Your task to perform on an android device: turn on data saver in the chrome app Image 0: 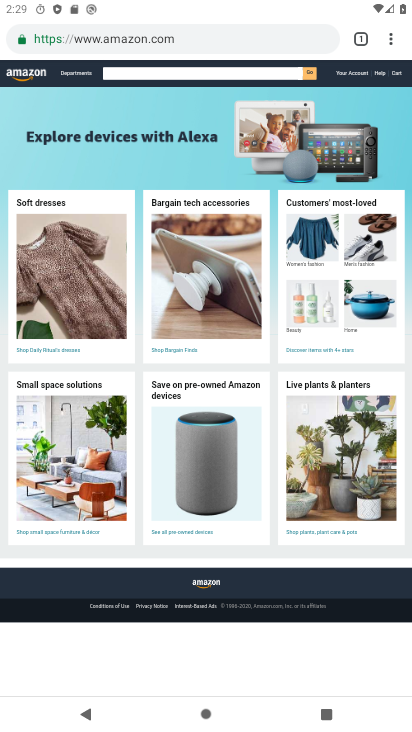
Step 0: press home button
Your task to perform on an android device: turn on data saver in the chrome app Image 1: 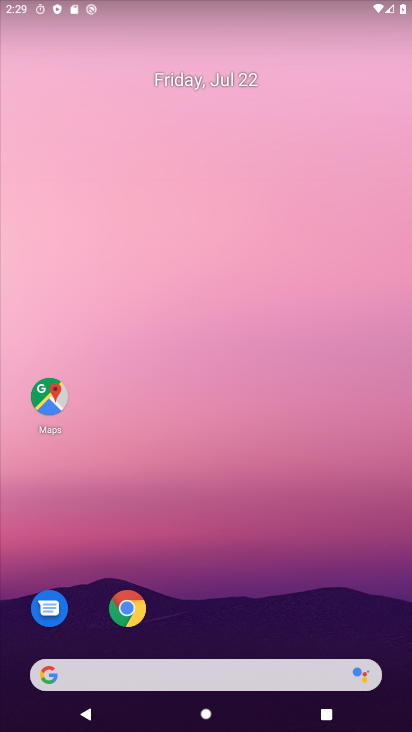
Step 1: drag from (153, 656) to (155, 192)
Your task to perform on an android device: turn on data saver in the chrome app Image 2: 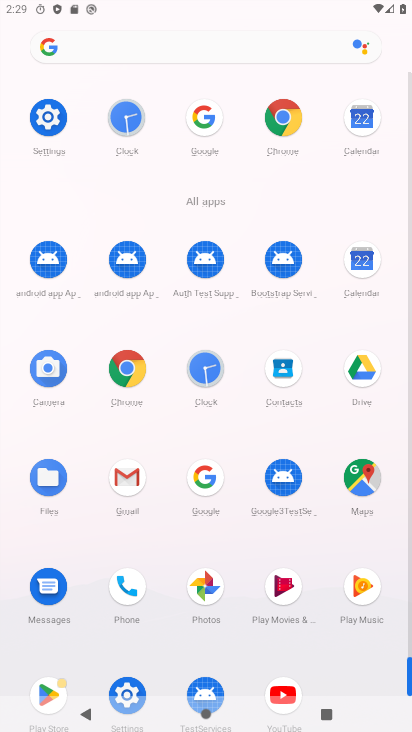
Step 2: click (125, 370)
Your task to perform on an android device: turn on data saver in the chrome app Image 3: 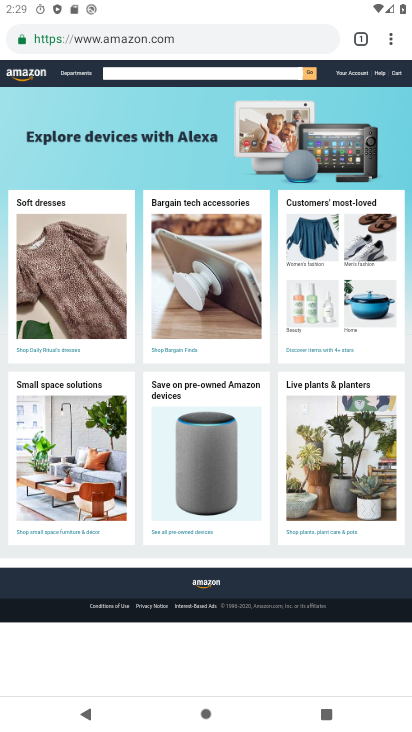
Step 3: click (395, 38)
Your task to perform on an android device: turn on data saver in the chrome app Image 4: 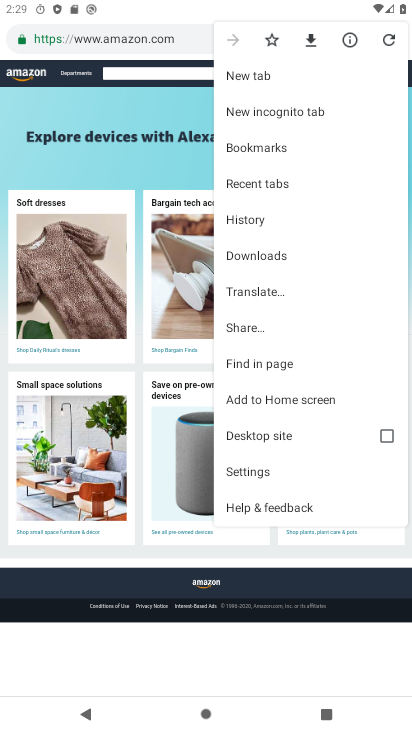
Step 4: click (253, 475)
Your task to perform on an android device: turn on data saver in the chrome app Image 5: 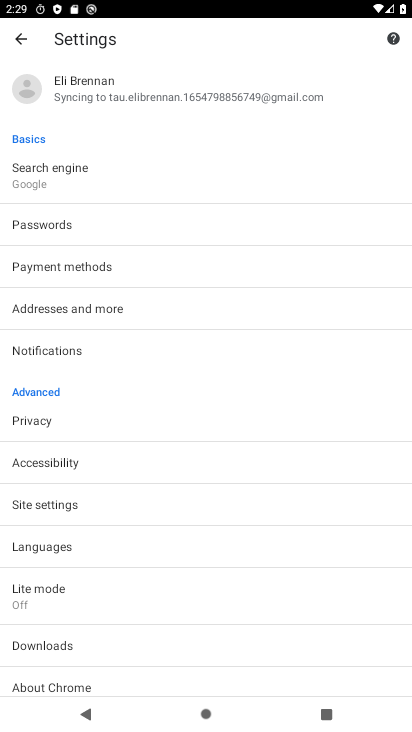
Step 5: click (27, 592)
Your task to perform on an android device: turn on data saver in the chrome app Image 6: 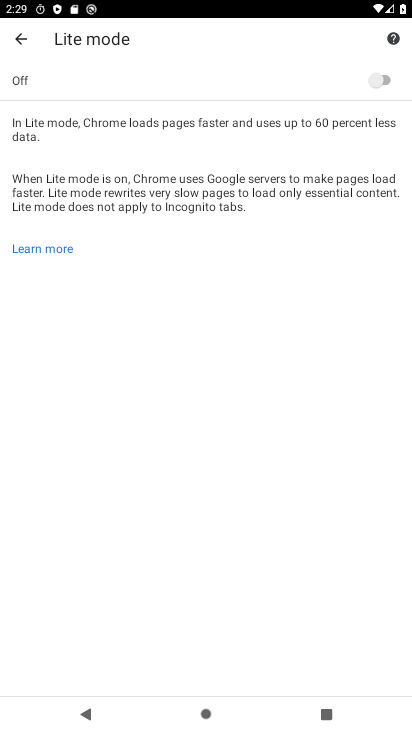
Step 6: click (386, 79)
Your task to perform on an android device: turn on data saver in the chrome app Image 7: 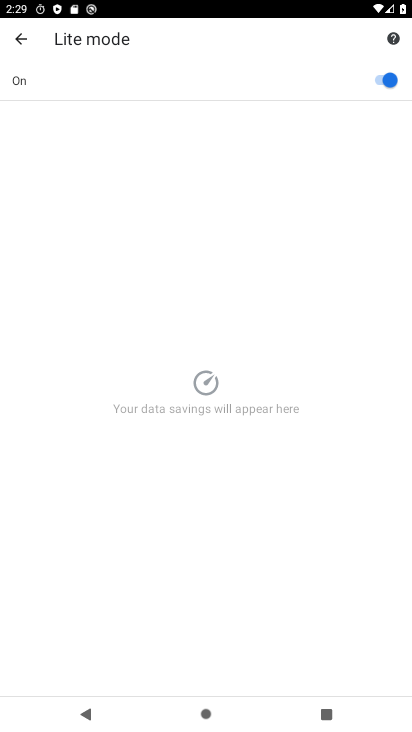
Step 7: task complete